Your task to perform on an android device: turn on javascript in the chrome app Image 0: 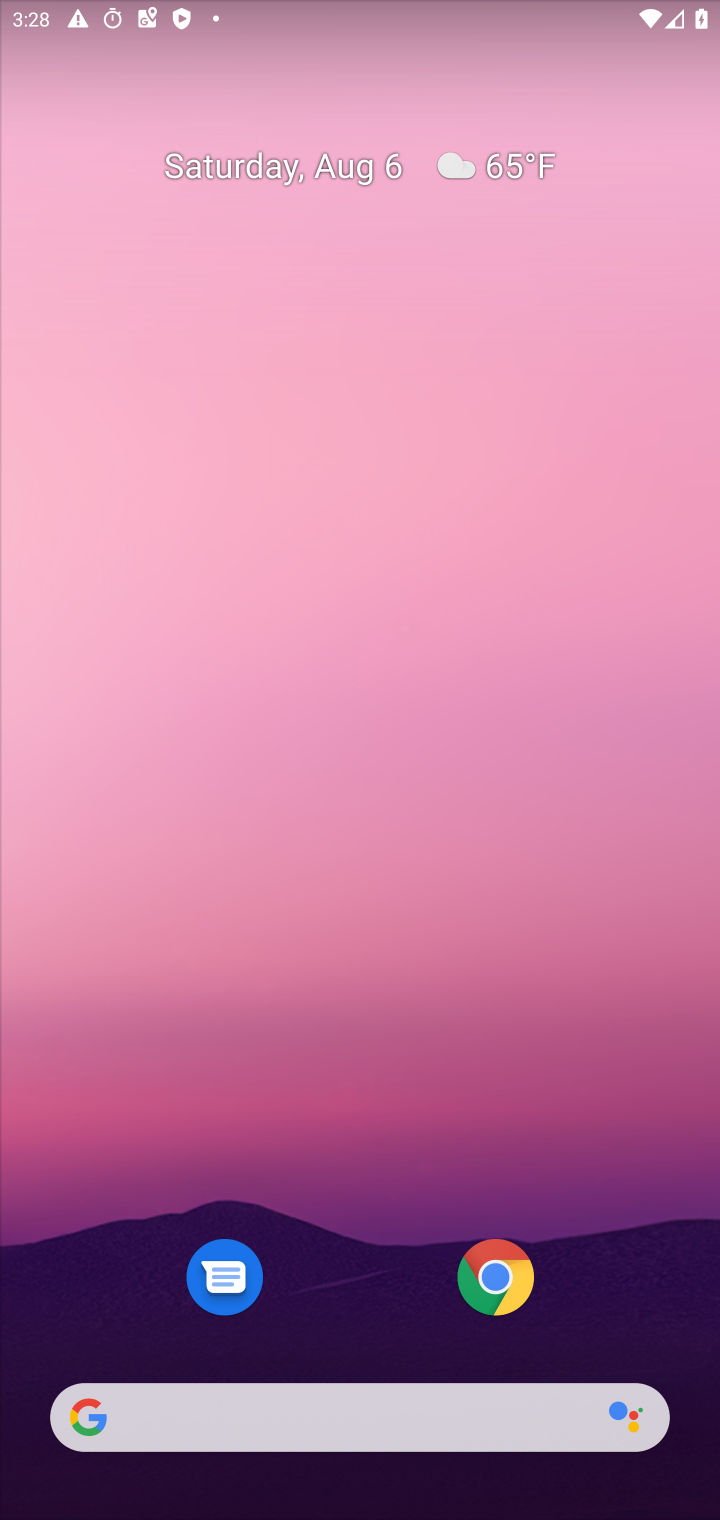
Step 0: drag from (537, 1408) to (497, 197)
Your task to perform on an android device: turn on javascript in the chrome app Image 1: 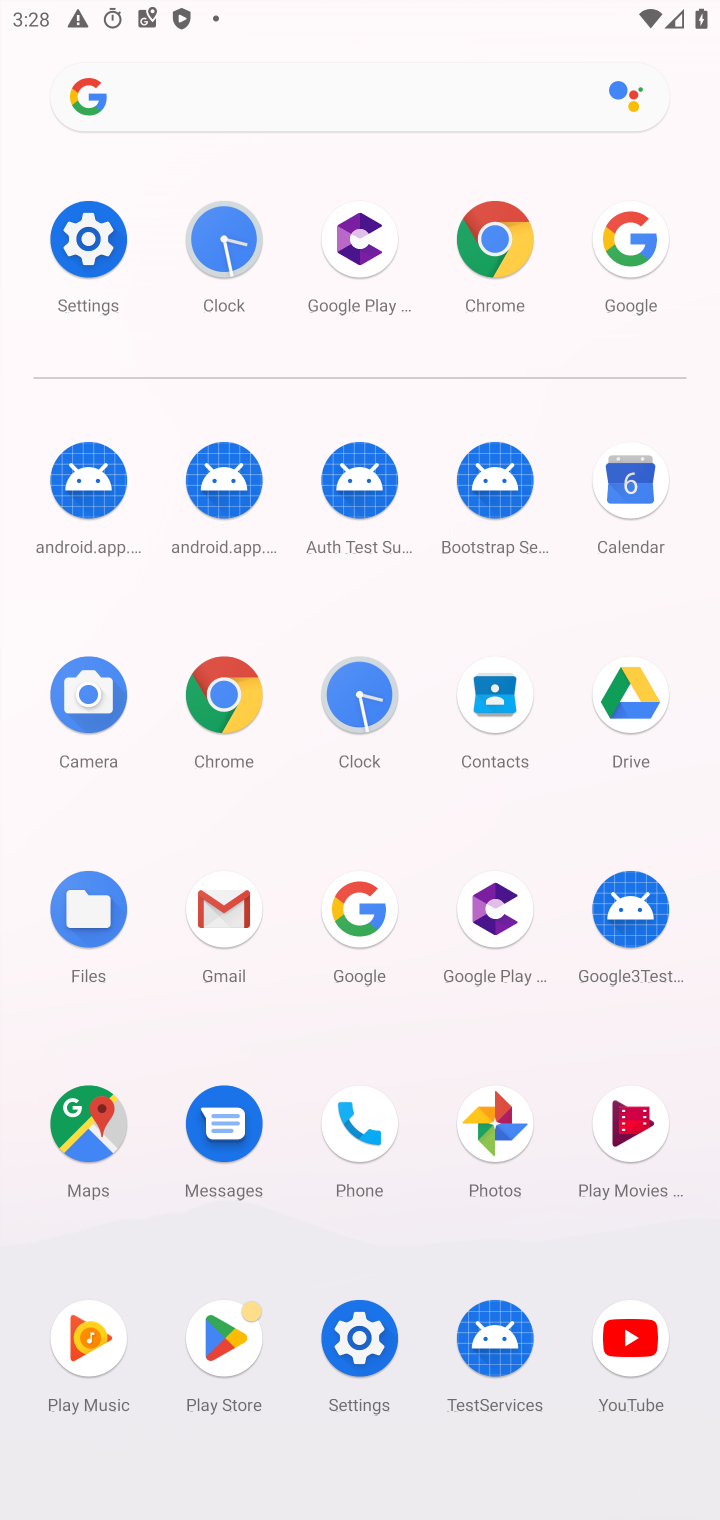
Step 1: click (232, 663)
Your task to perform on an android device: turn on javascript in the chrome app Image 2: 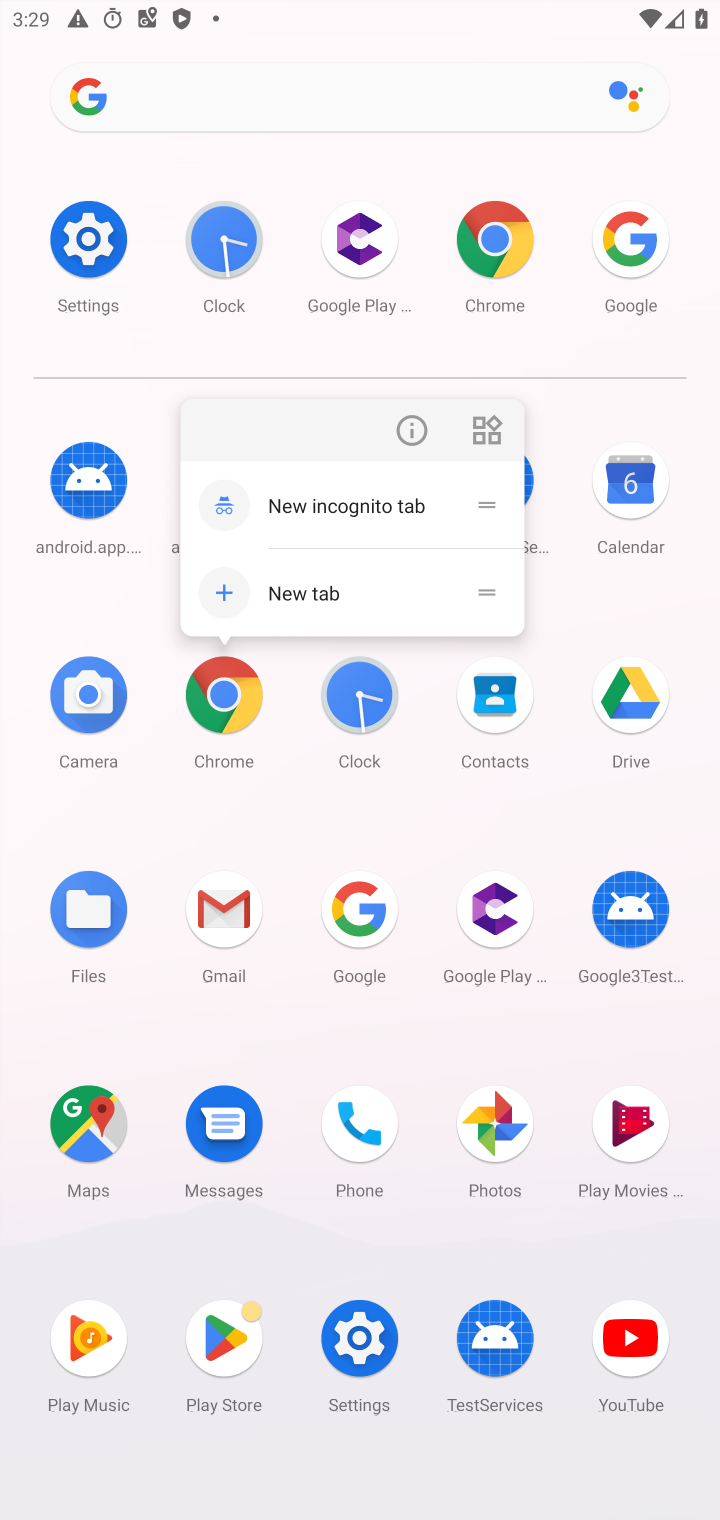
Step 2: click (219, 673)
Your task to perform on an android device: turn on javascript in the chrome app Image 3: 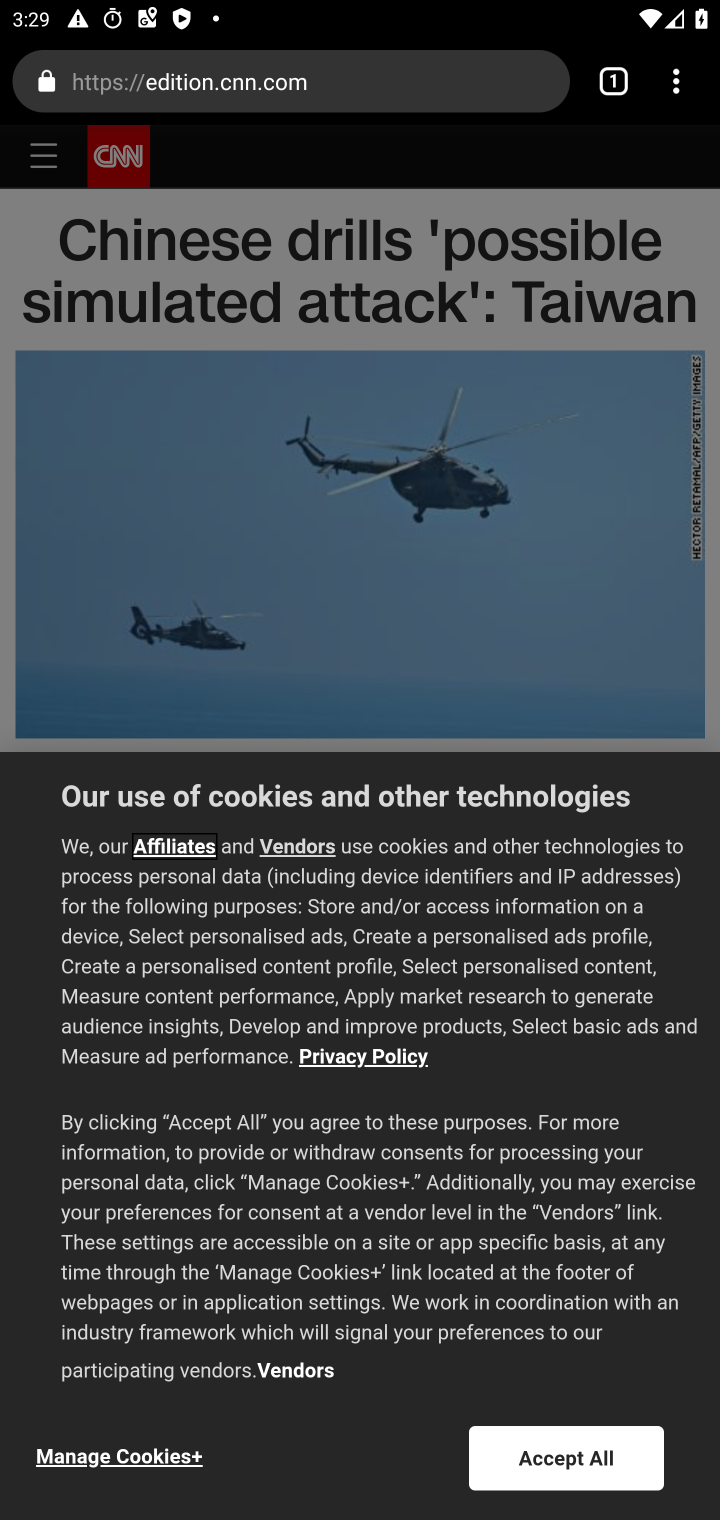
Step 3: click (681, 72)
Your task to perform on an android device: turn on javascript in the chrome app Image 4: 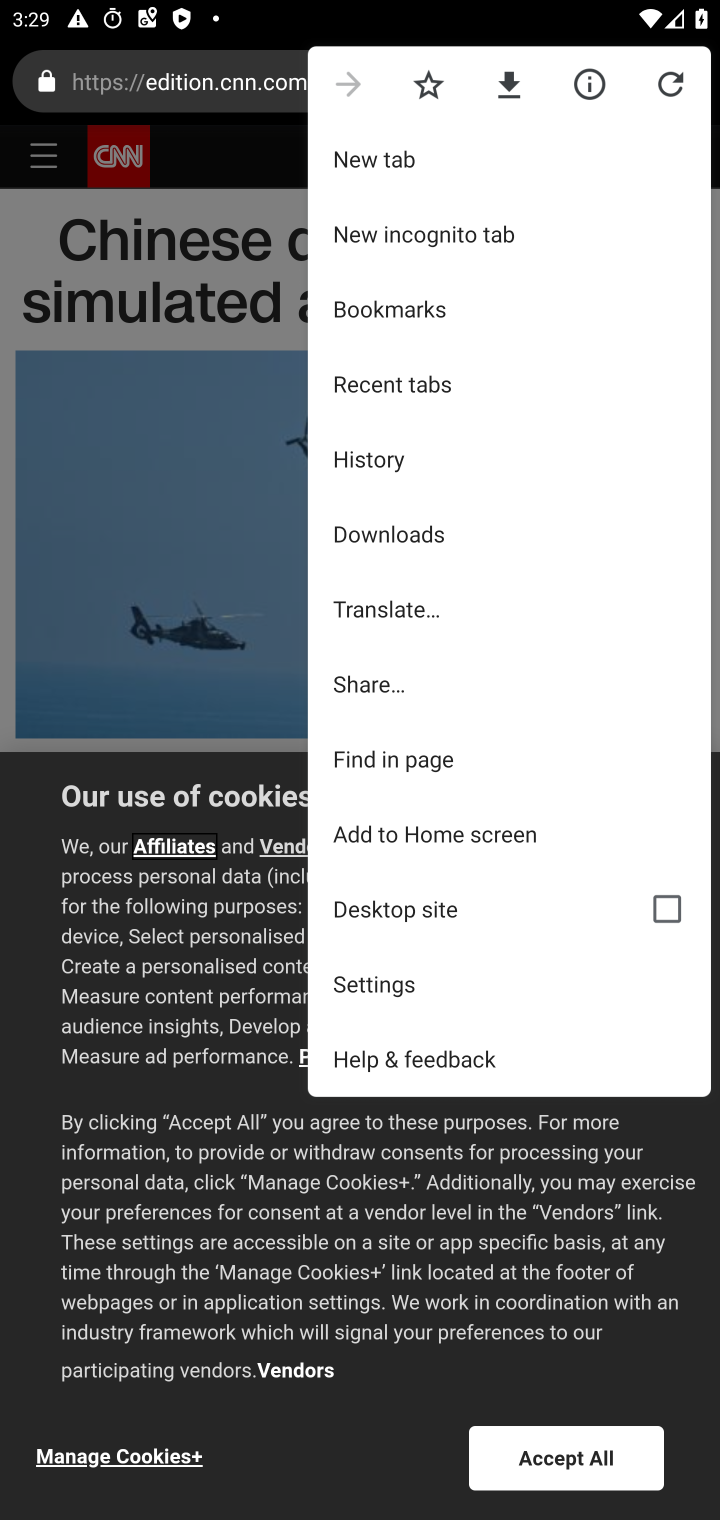
Step 4: click (436, 972)
Your task to perform on an android device: turn on javascript in the chrome app Image 5: 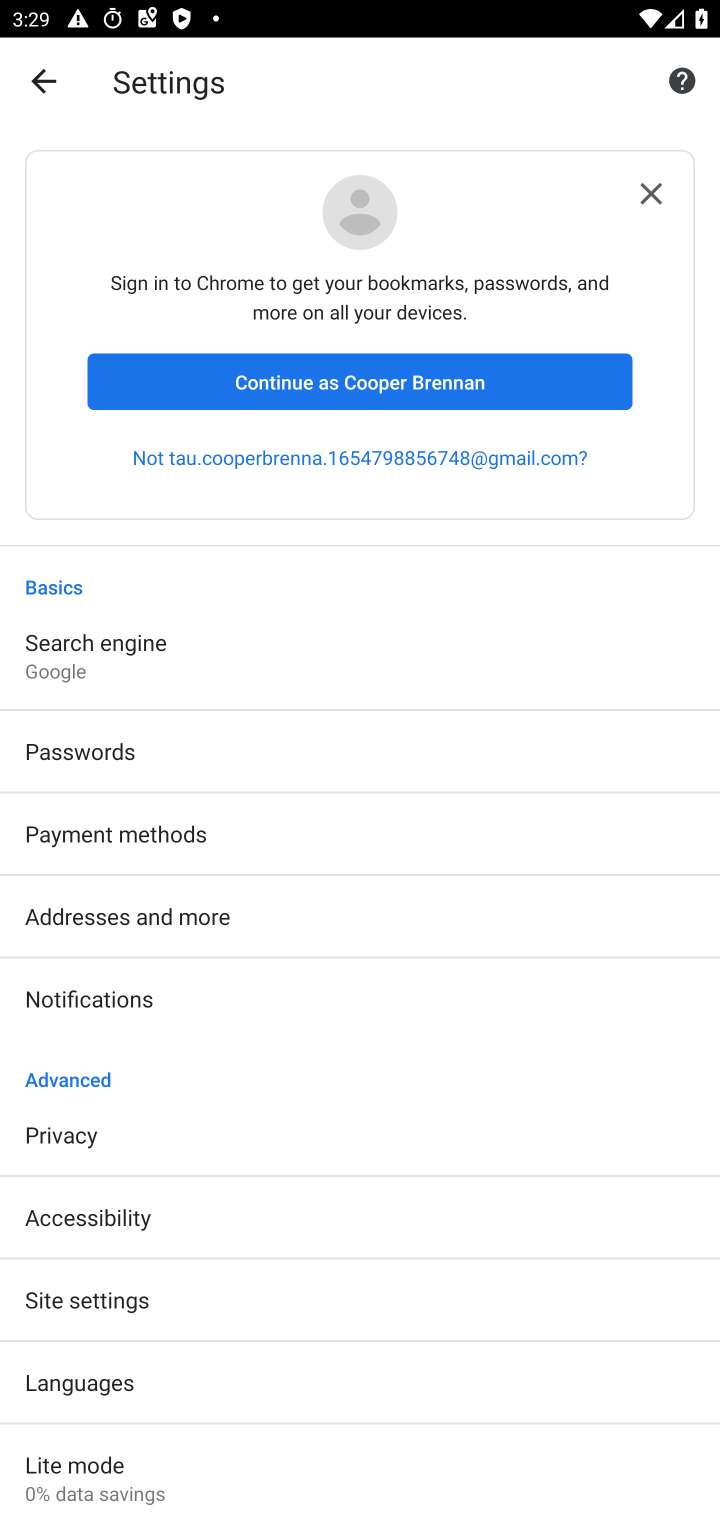
Step 5: click (198, 1313)
Your task to perform on an android device: turn on javascript in the chrome app Image 6: 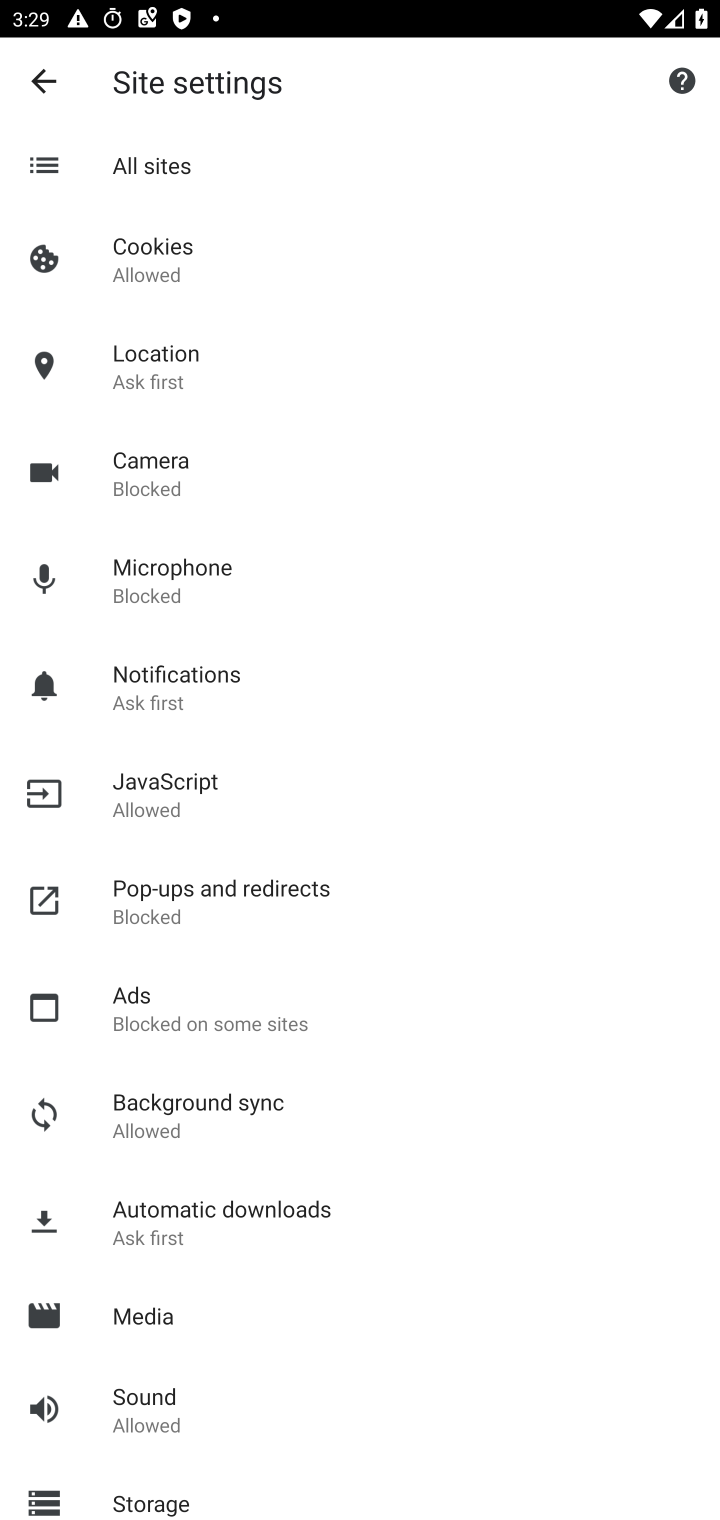
Step 6: click (238, 815)
Your task to perform on an android device: turn on javascript in the chrome app Image 7: 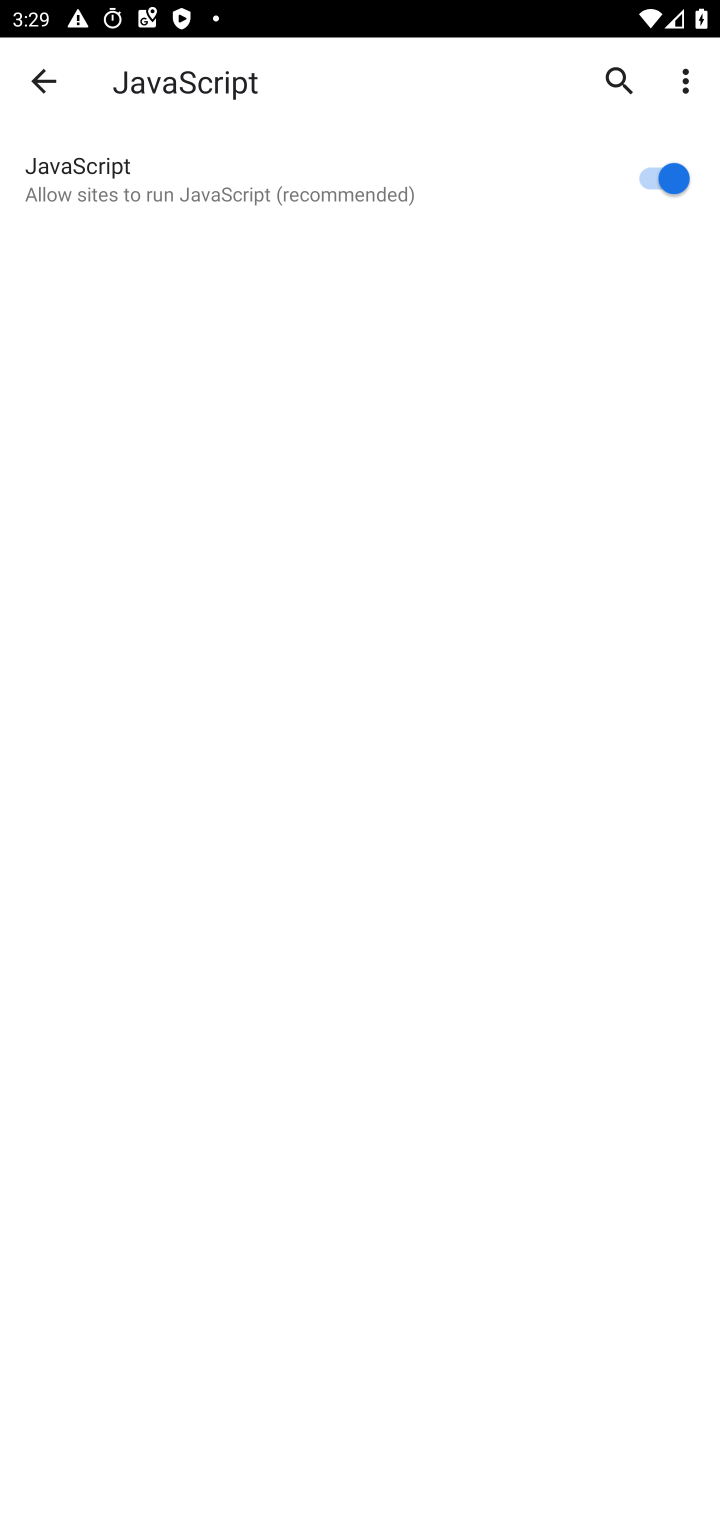
Step 7: task complete